Your task to perform on an android device: toggle data saver in the chrome app Image 0: 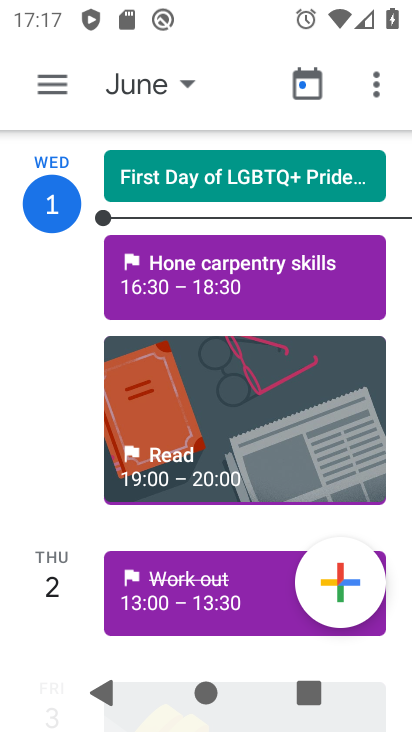
Step 0: press home button
Your task to perform on an android device: toggle data saver in the chrome app Image 1: 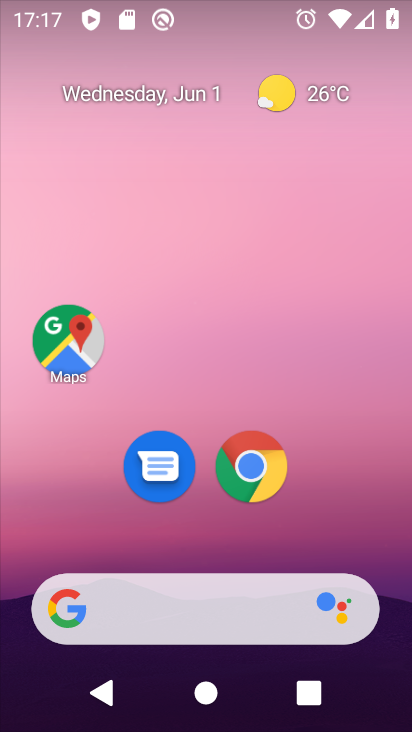
Step 1: click (239, 461)
Your task to perform on an android device: toggle data saver in the chrome app Image 2: 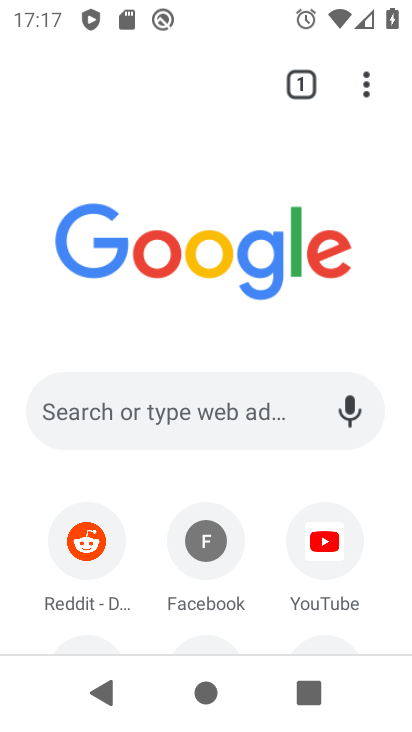
Step 2: click (362, 79)
Your task to perform on an android device: toggle data saver in the chrome app Image 3: 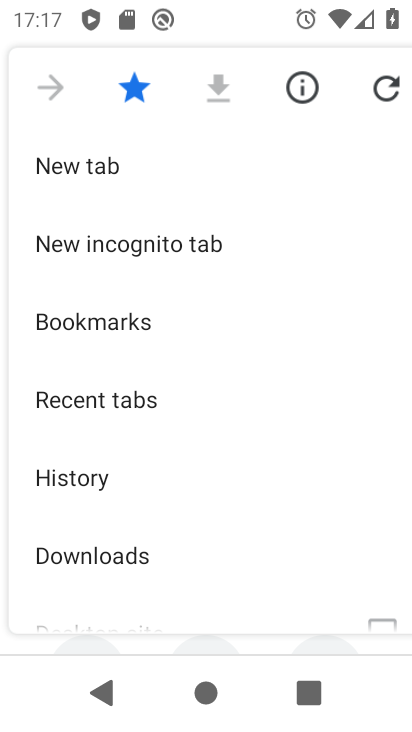
Step 3: drag from (306, 471) to (255, 114)
Your task to perform on an android device: toggle data saver in the chrome app Image 4: 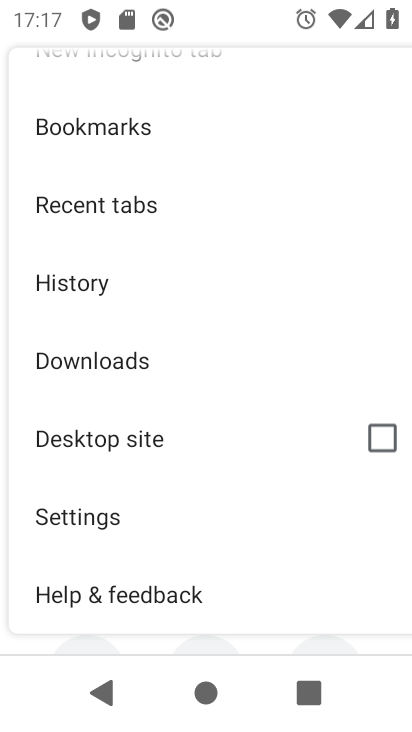
Step 4: click (96, 515)
Your task to perform on an android device: toggle data saver in the chrome app Image 5: 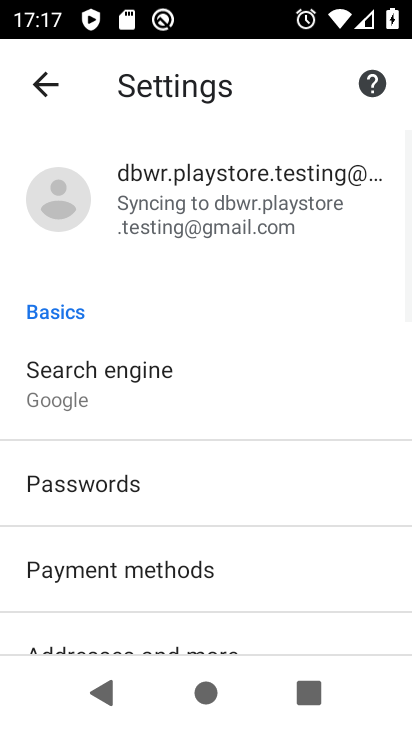
Step 5: drag from (265, 530) to (237, 160)
Your task to perform on an android device: toggle data saver in the chrome app Image 6: 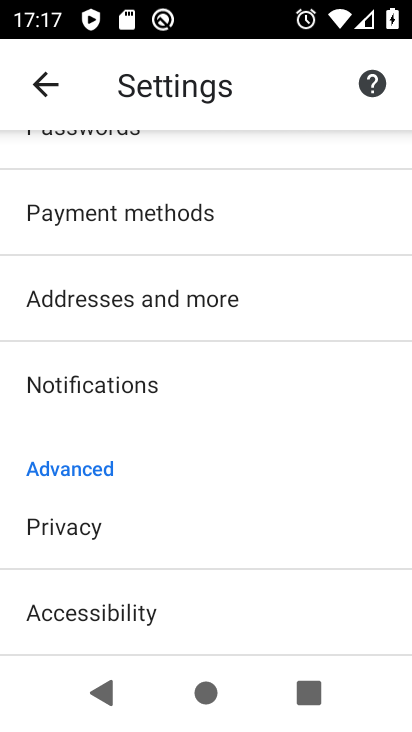
Step 6: drag from (243, 442) to (219, 215)
Your task to perform on an android device: toggle data saver in the chrome app Image 7: 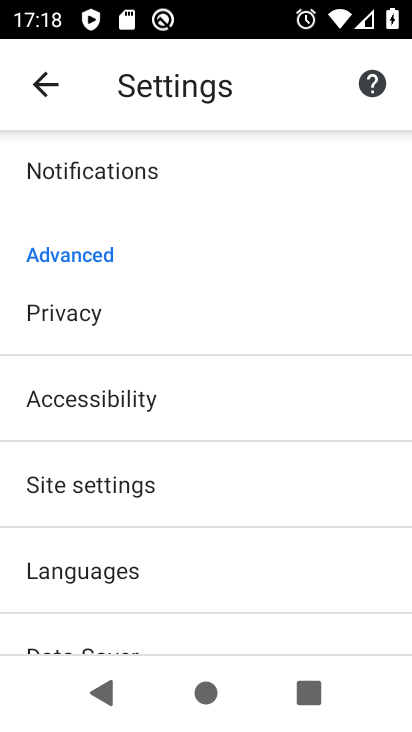
Step 7: drag from (226, 545) to (218, 152)
Your task to perform on an android device: toggle data saver in the chrome app Image 8: 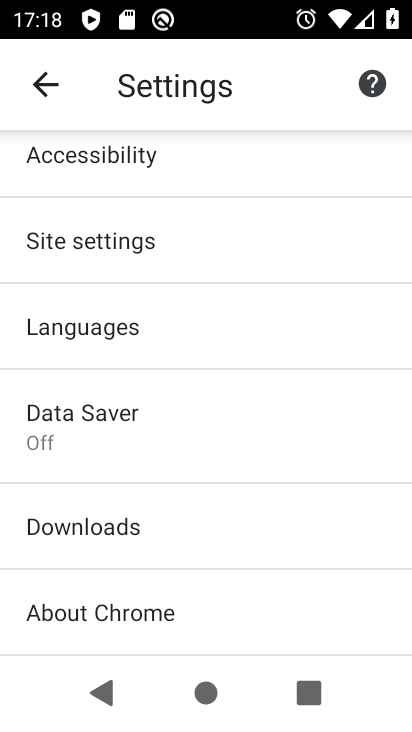
Step 8: click (75, 410)
Your task to perform on an android device: toggle data saver in the chrome app Image 9: 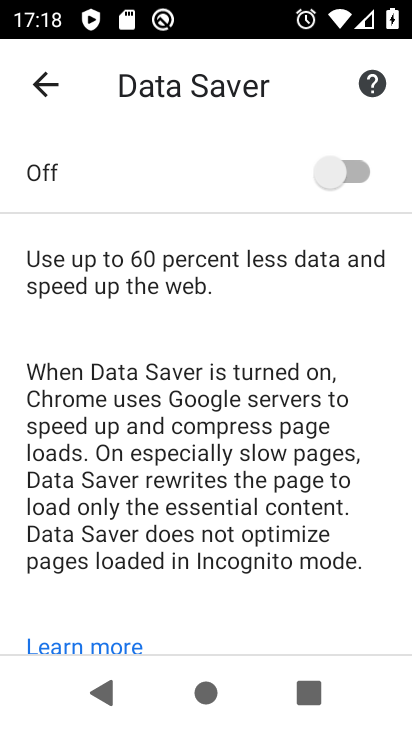
Step 9: click (325, 178)
Your task to perform on an android device: toggle data saver in the chrome app Image 10: 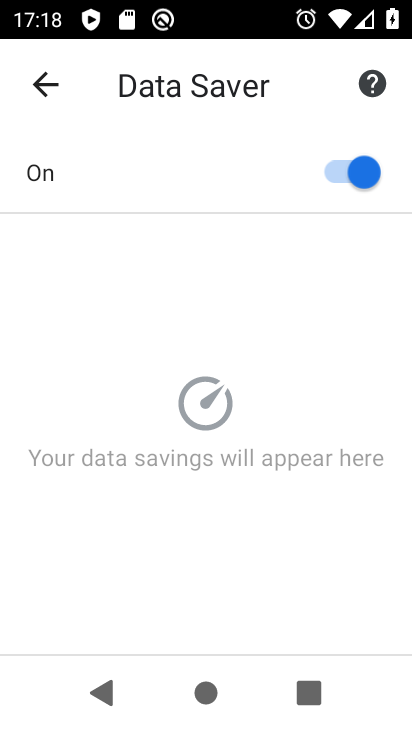
Step 10: task complete